Your task to perform on an android device: turn off smart reply in the gmail app Image 0: 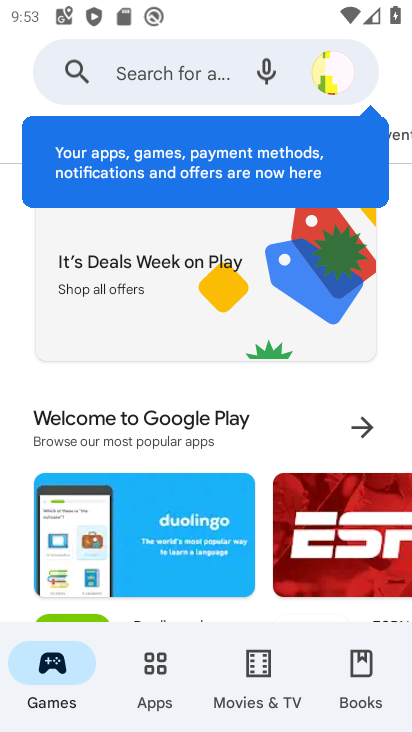
Step 0: press home button
Your task to perform on an android device: turn off smart reply in the gmail app Image 1: 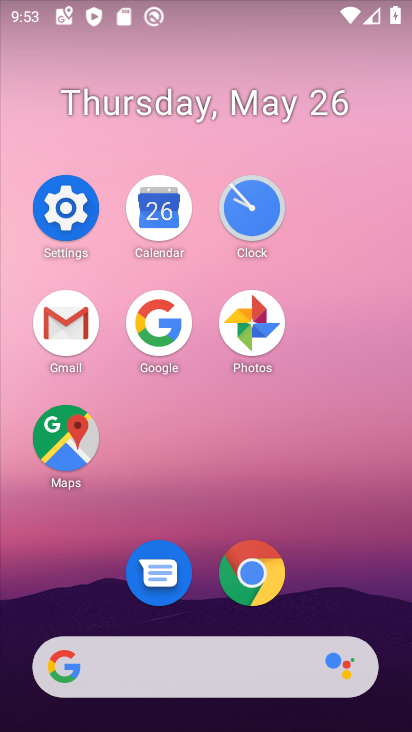
Step 1: click (73, 347)
Your task to perform on an android device: turn off smart reply in the gmail app Image 2: 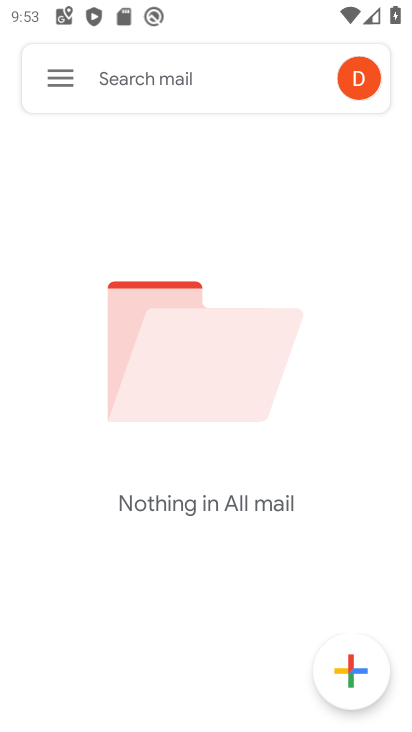
Step 2: click (76, 104)
Your task to perform on an android device: turn off smart reply in the gmail app Image 3: 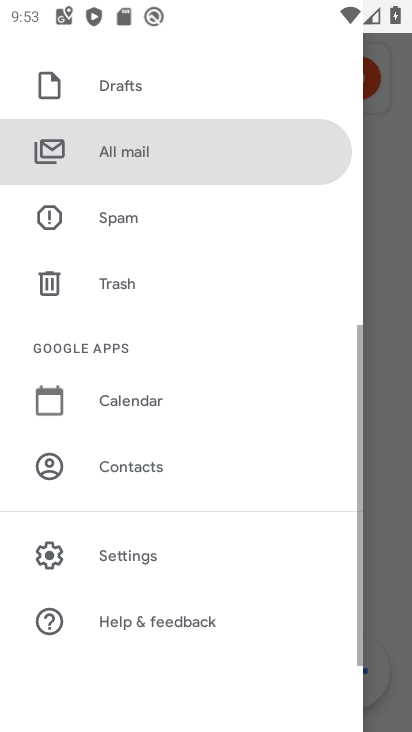
Step 3: drag from (209, 559) to (209, 177)
Your task to perform on an android device: turn off smart reply in the gmail app Image 4: 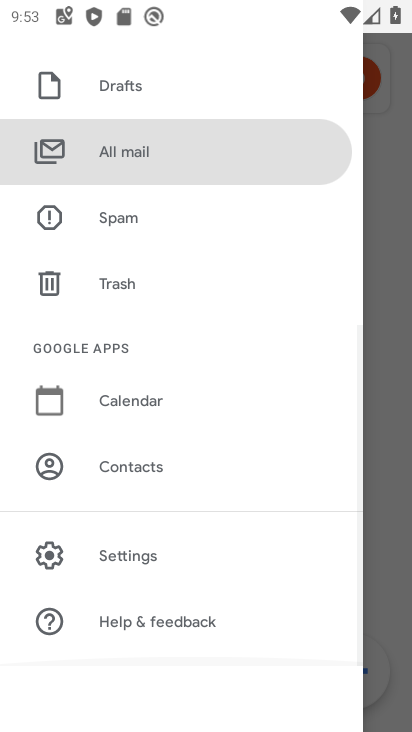
Step 4: click (191, 540)
Your task to perform on an android device: turn off smart reply in the gmail app Image 5: 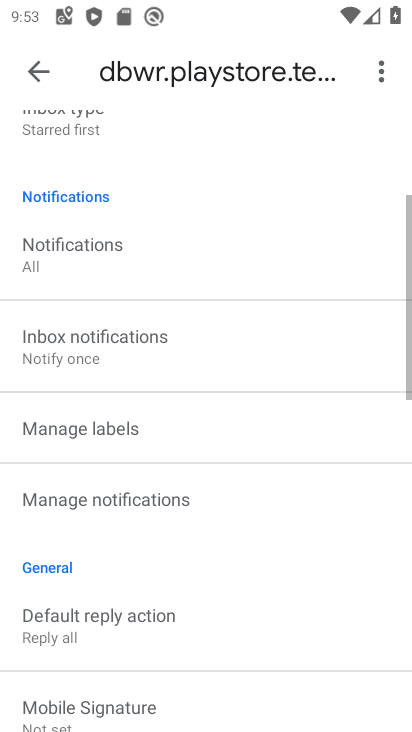
Step 5: drag from (209, 256) to (241, 85)
Your task to perform on an android device: turn off smart reply in the gmail app Image 6: 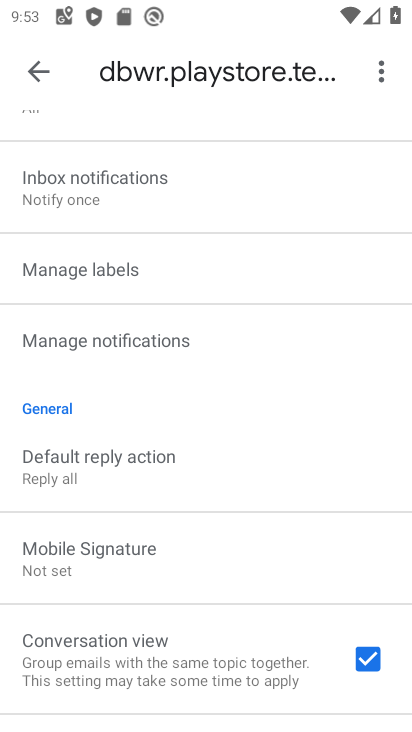
Step 6: drag from (276, 525) to (291, 71)
Your task to perform on an android device: turn off smart reply in the gmail app Image 7: 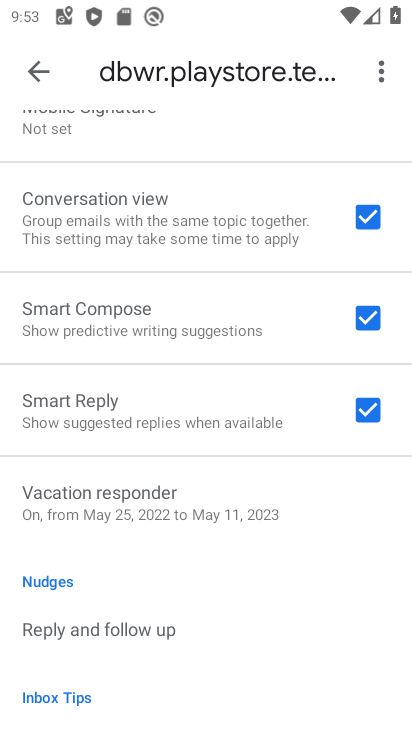
Step 7: click (354, 406)
Your task to perform on an android device: turn off smart reply in the gmail app Image 8: 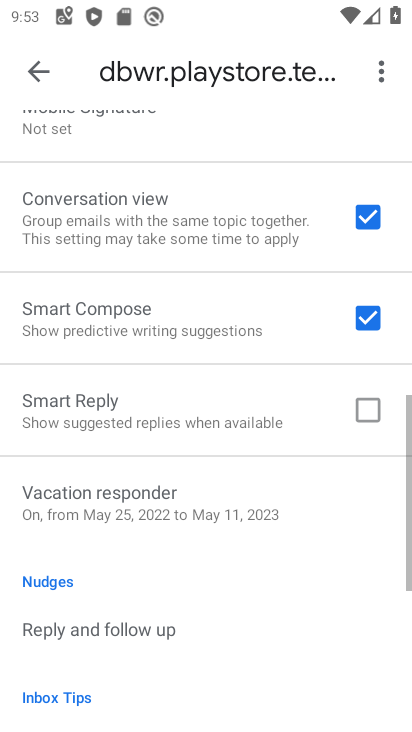
Step 8: task complete